Your task to perform on an android device: Open Chrome and go to the settings page Image 0: 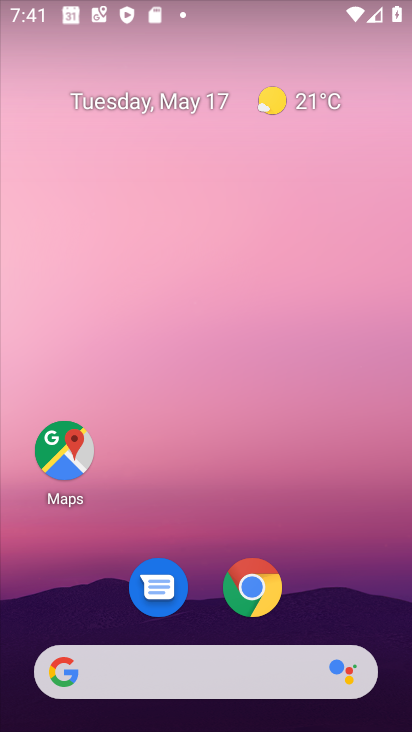
Step 0: drag from (338, 616) to (361, 281)
Your task to perform on an android device: Open Chrome and go to the settings page Image 1: 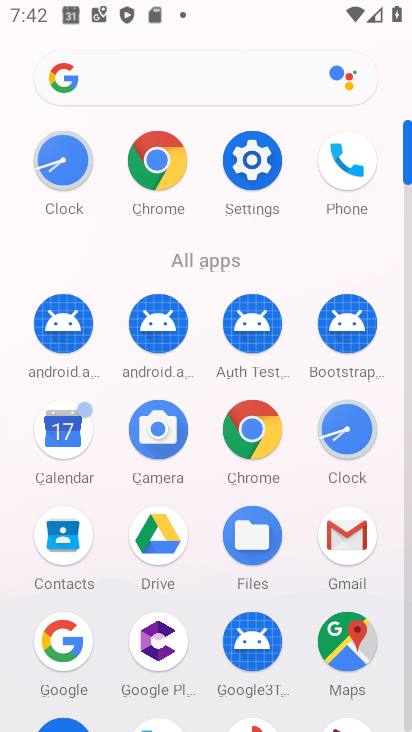
Step 1: click (261, 430)
Your task to perform on an android device: Open Chrome and go to the settings page Image 2: 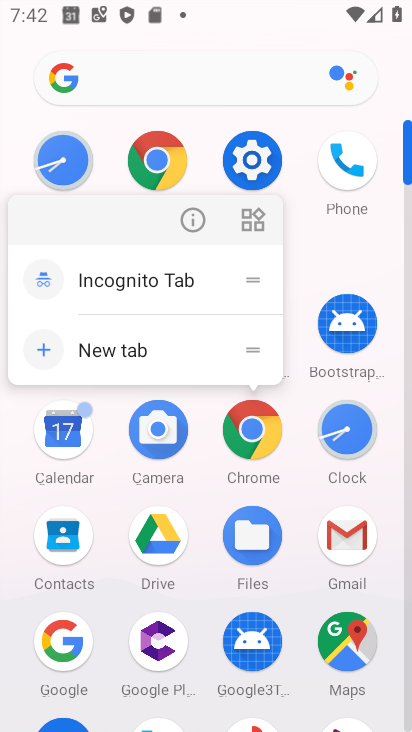
Step 2: click (253, 438)
Your task to perform on an android device: Open Chrome and go to the settings page Image 3: 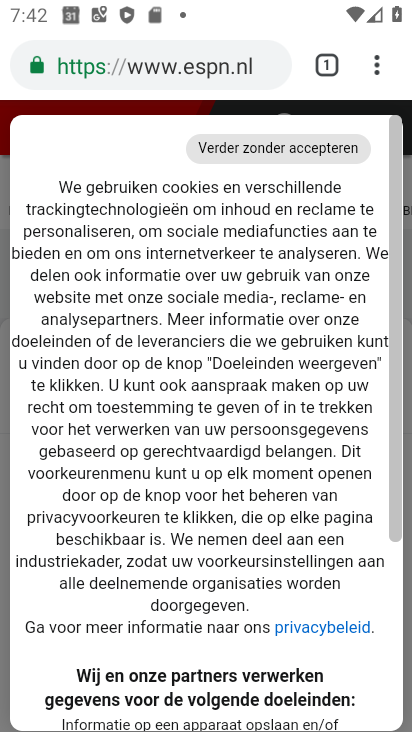
Step 3: click (375, 70)
Your task to perform on an android device: Open Chrome and go to the settings page Image 4: 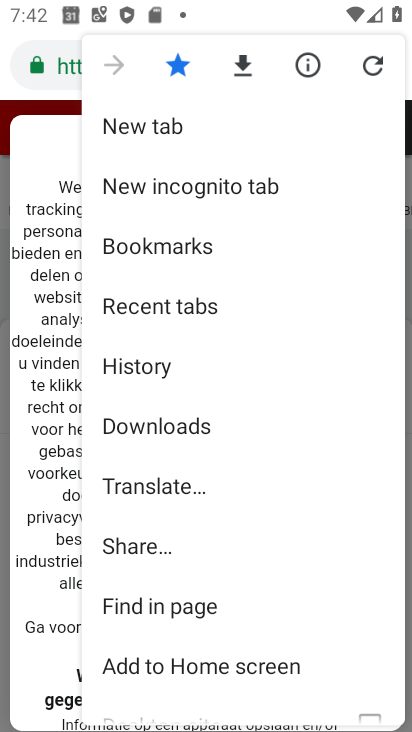
Step 4: drag from (290, 528) to (300, 431)
Your task to perform on an android device: Open Chrome and go to the settings page Image 5: 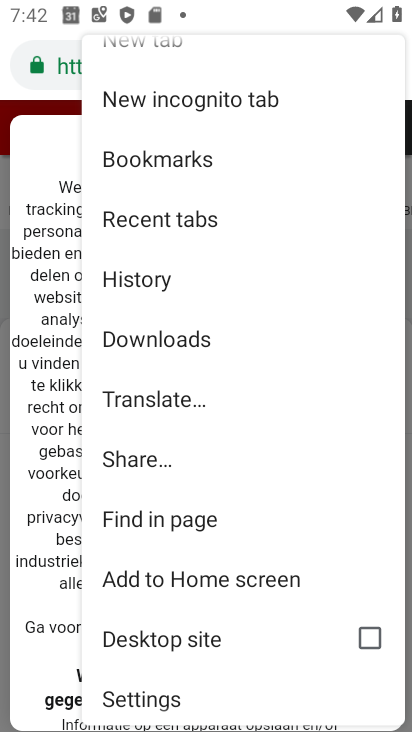
Step 5: drag from (304, 519) to (312, 463)
Your task to perform on an android device: Open Chrome and go to the settings page Image 6: 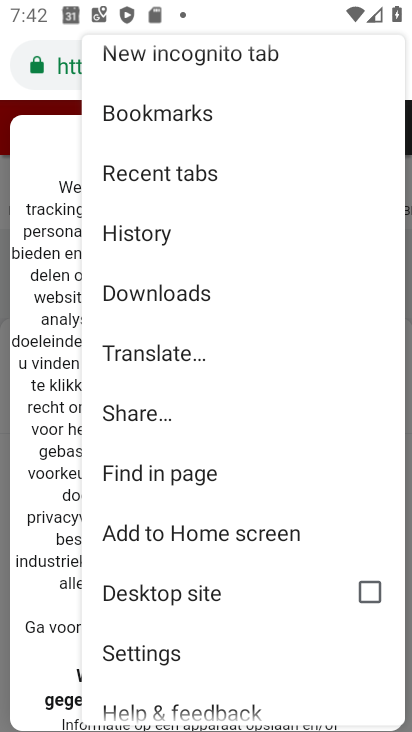
Step 6: drag from (291, 318) to (297, 404)
Your task to perform on an android device: Open Chrome and go to the settings page Image 7: 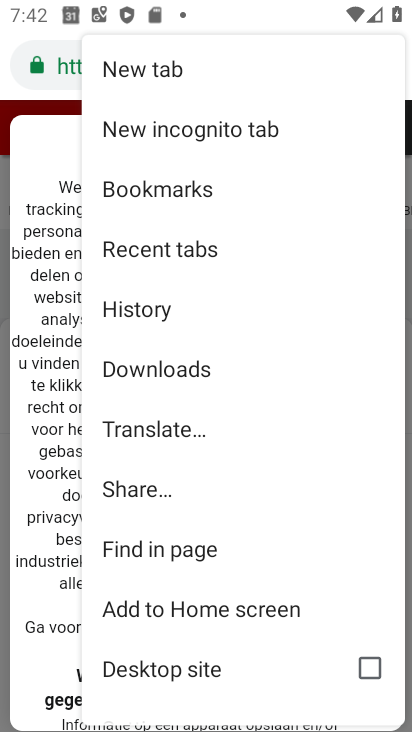
Step 7: drag from (329, 254) to (326, 343)
Your task to perform on an android device: Open Chrome and go to the settings page Image 8: 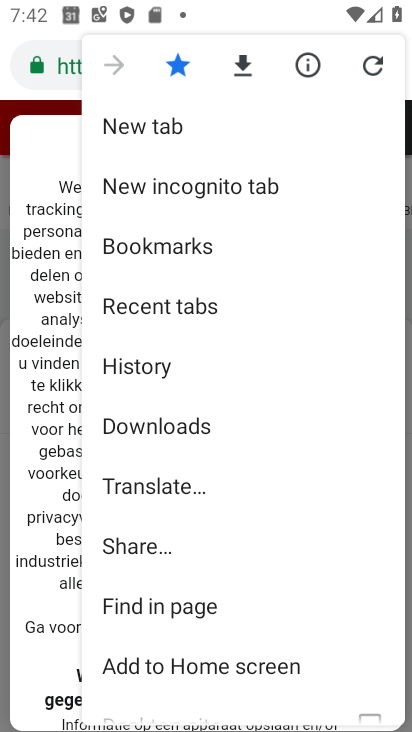
Step 8: drag from (326, 294) to (323, 422)
Your task to perform on an android device: Open Chrome and go to the settings page Image 9: 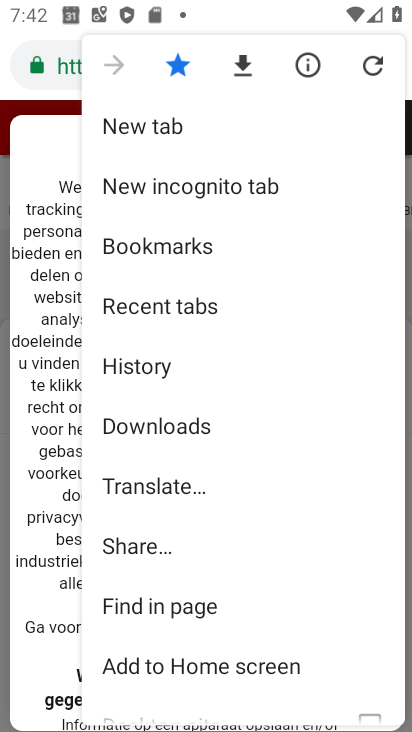
Step 9: drag from (321, 514) to (323, 424)
Your task to perform on an android device: Open Chrome and go to the settings page Image 10: 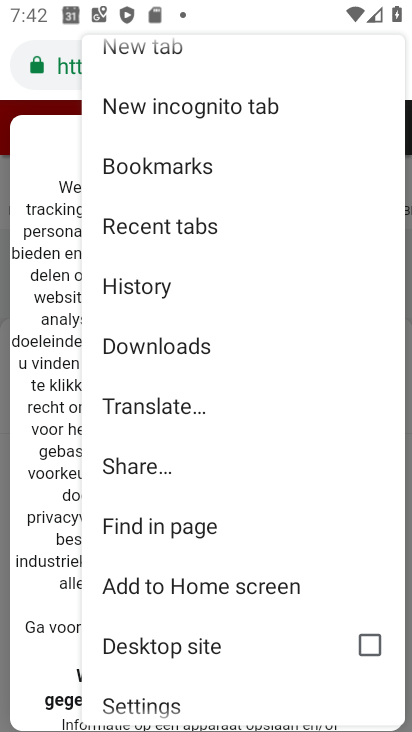
Step 10: drag from (298, 520) to (298, 460)
Your task to perform on an android device: Open Chrome and go to the settings page Image 11: 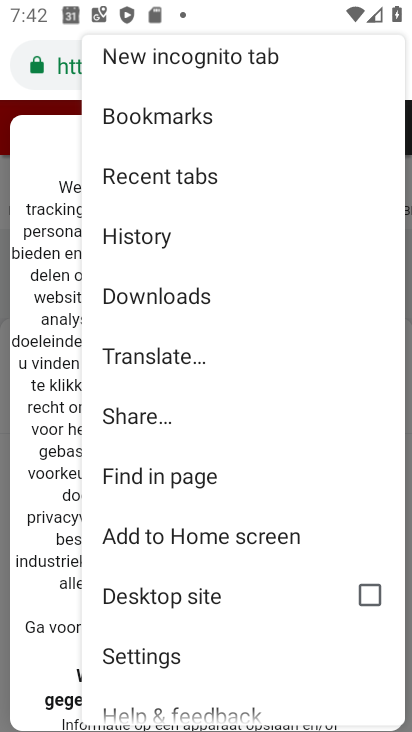
Step 11: drag from (324, 496) to (322, 425)
Your task to perform on an android device: Open Chrome and go to the settings page Image 12: 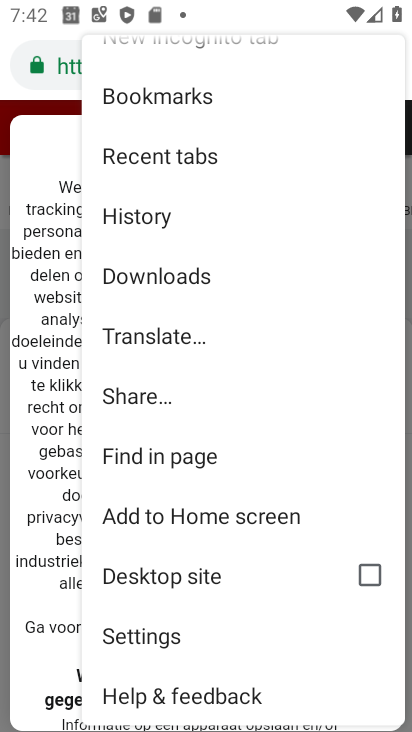
Step 12: click (195, 641)
Your task to perform on an android device: Open Chrome and go to the settings page Image 13: 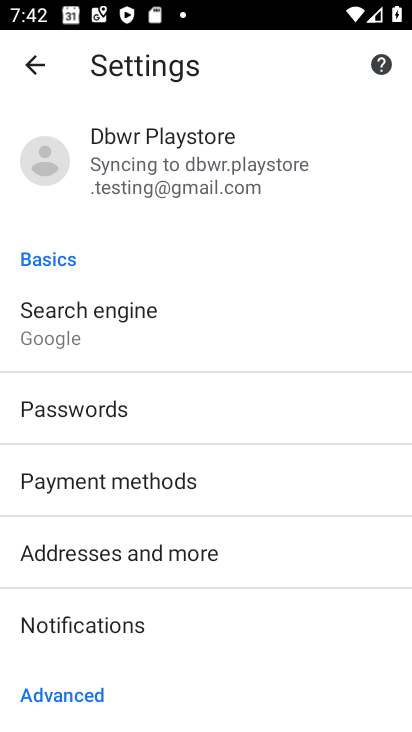
Step 13: task complete